Your task to perform on an android device: What's the weather today? Image 0: 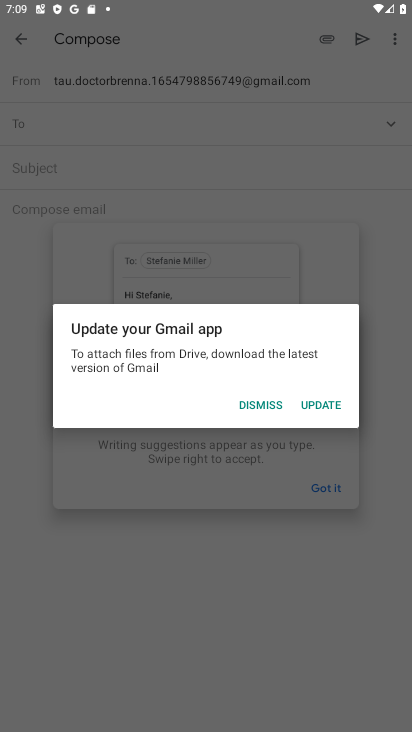
Step 0: press home button
Your task to perform on an android device: What's the weather today? Image 1: 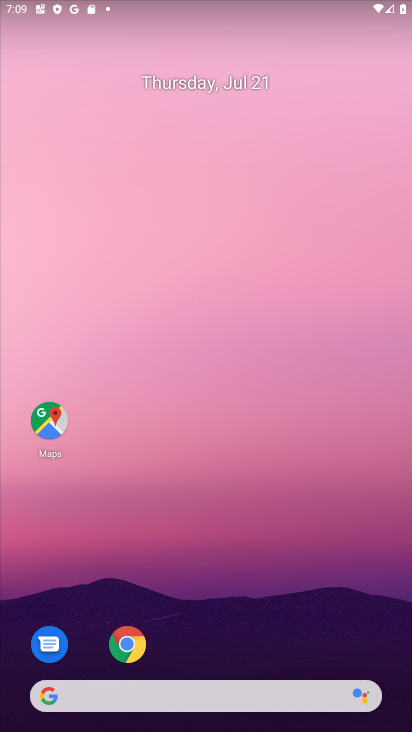
Step 1: click (165, 703)
Your task to perform on an android device: What's the weather today? Image 2: 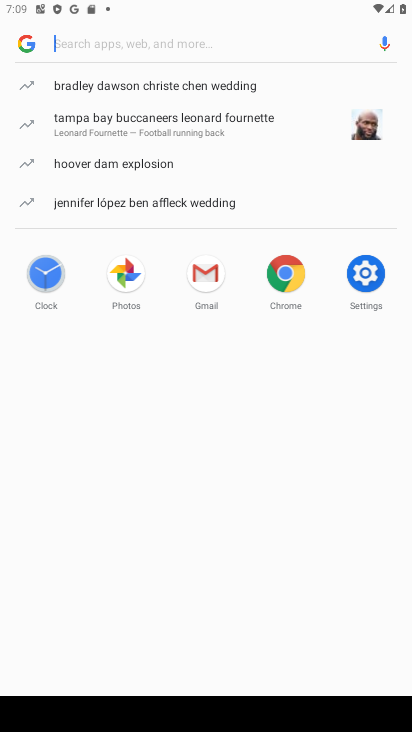
Step 2: type "What's the weather today?"
Your task to perform on an android device: What's the weather today? Image 3: 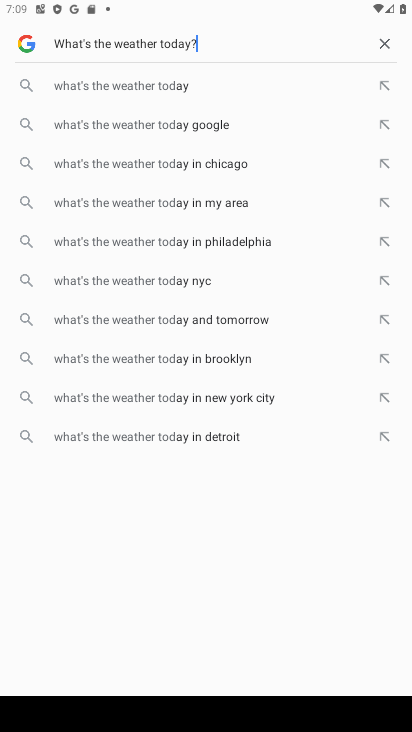
Step 3: type ""
Your task to perform on an android device: What's the weather today? Image 4: 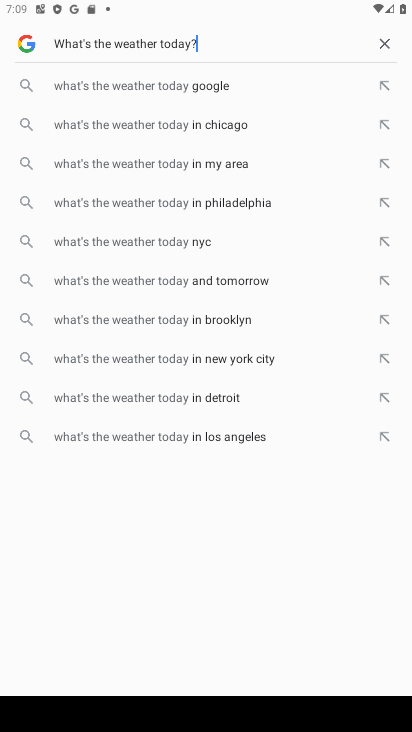
Step 4: press enter
Your task to perform on an android device: What's the weather today? Image 5: 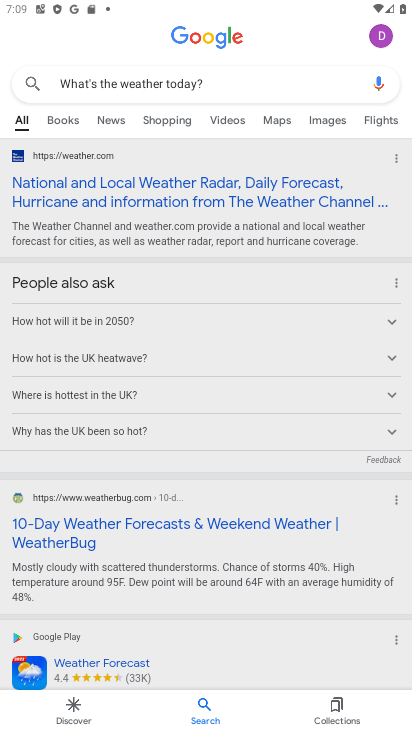
Step 5: task complete